Your task to perform on an android device: What's US dollar exchange rate against the Chinese Yuan? Image 0: 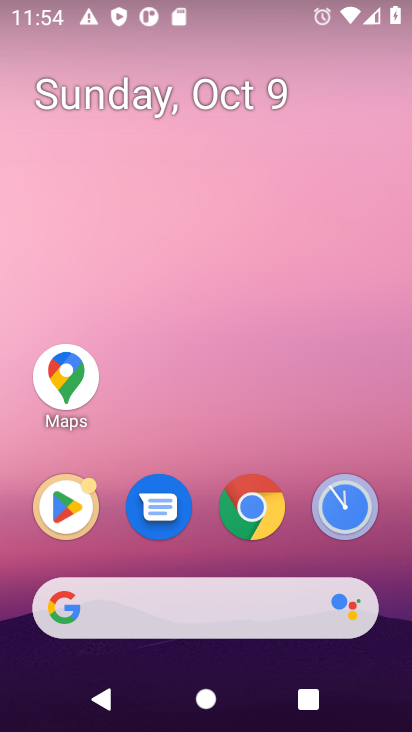
Step 0: press home button
Your task to perform on an android device: What's US dollar exchange rate against the Chinese Yuan? Image 1: 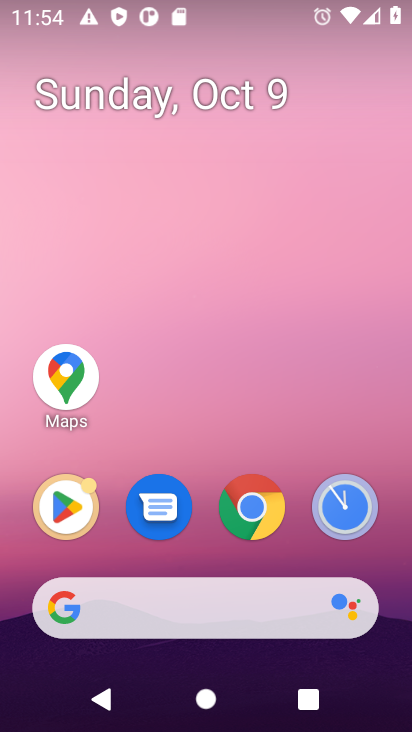
Step 1: click (249, 606)
Your task to perform on an android device: What's US dollar exchange rate against the Chinese Yuan? Image 2: 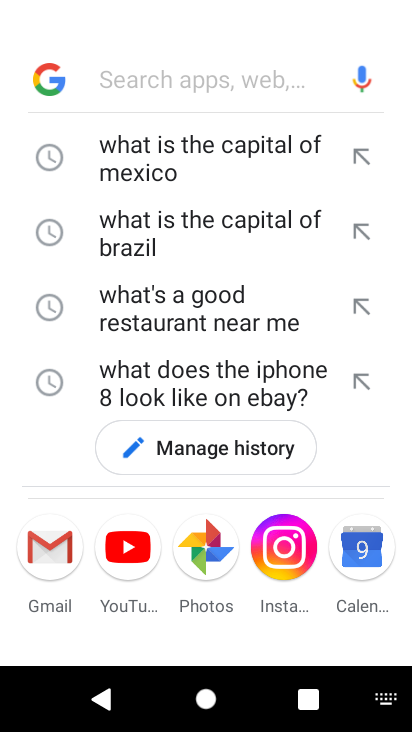
Step 2: type "What's US dollar exchange rate against the Chinese Yuan"
Your task to perform on an android device: What's US dollar exchange rate against the Chinese Yuan? Image 3: 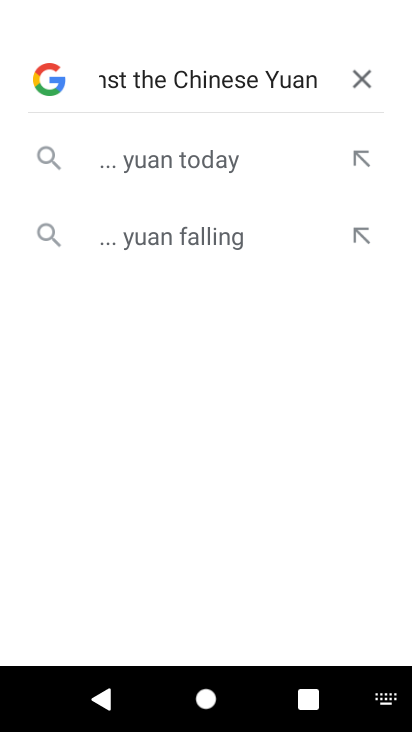
Step 3: press enter
Your task to perform on an android device: What's US dollar exchange rate against the Chinese Yuan? Image 4: 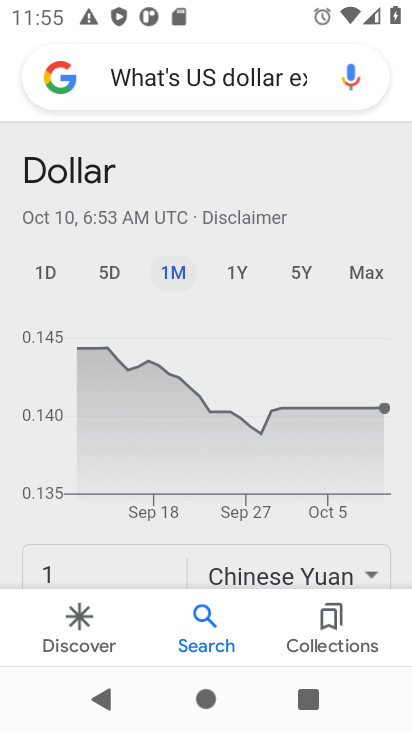
Step 4: task complete